Your task to perform on an android device: Open Yahoo.com Image 0: 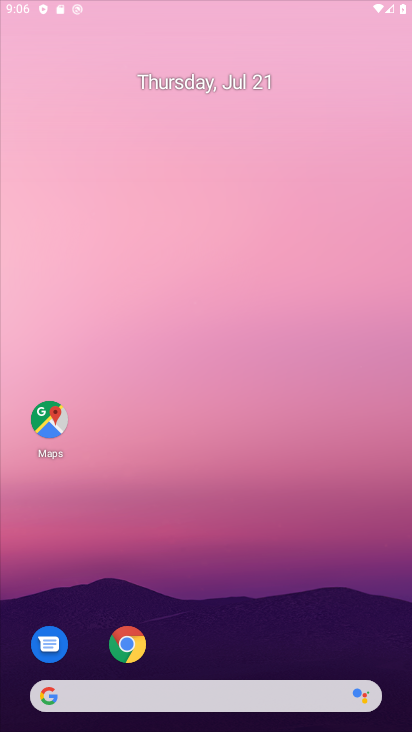
Step 0: drag from (233, 685) to (166, 229)
Your task to perform on an android device: Open Yahoo.com Image 1: 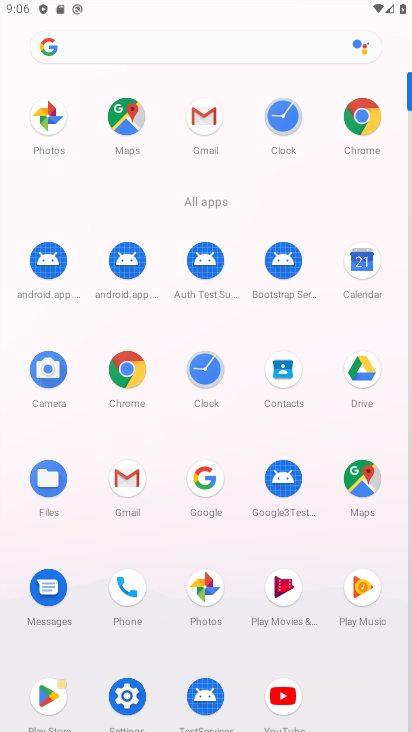
Step 1: click (357, 118)
Your task to perform on an android device: Open Yahoo.com Image 2: 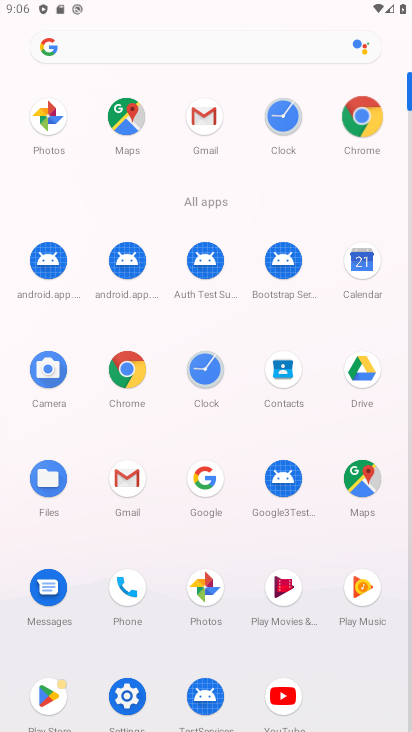
Step 2: click (359, 114)
Your task to perform on an android device: Open Yahoo.com Image 3: 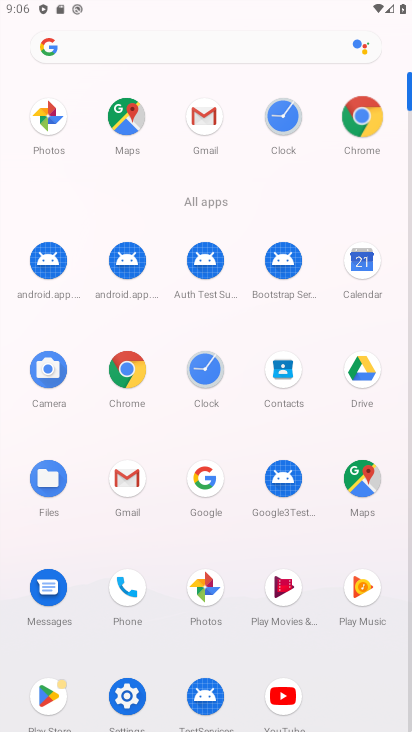
Step 3: click (359, 115)
Your task to perform on an android device: Open Yahoo.com Image 4: 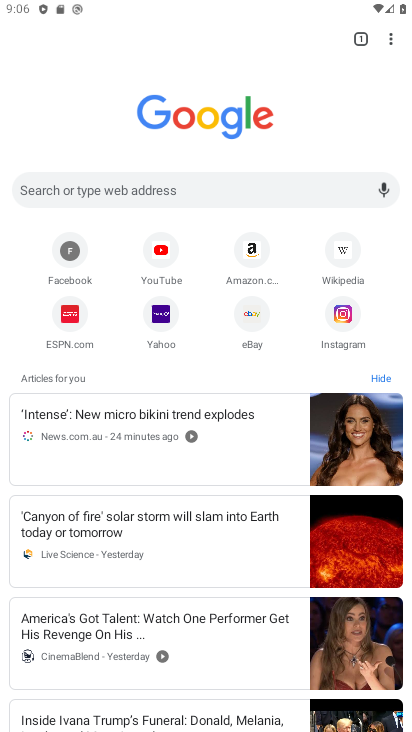
Step 4: click (167, 305)
Your task to perform on an android device: Open Yahoo.com Image 5: 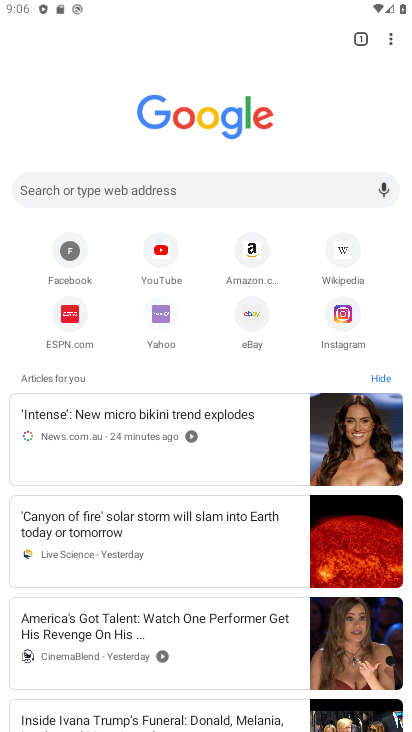
Step 5: click (162, 306)
Your task to perform on an android device: Open Yahoo.com Image 6: 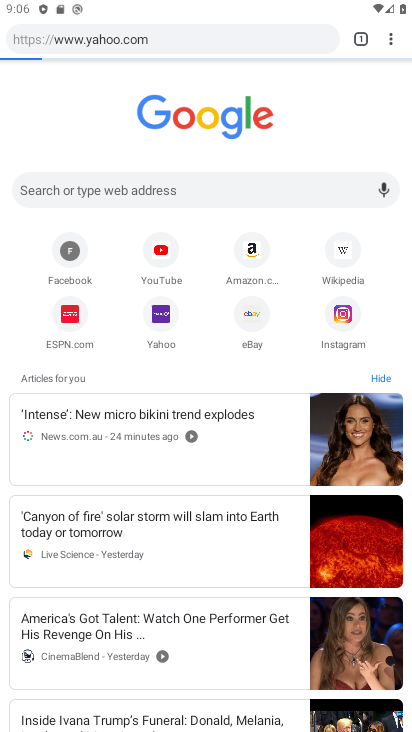
Step 6: click (162, 306)
Your task to perform on an android device: Open Yahoo.com Image 7: 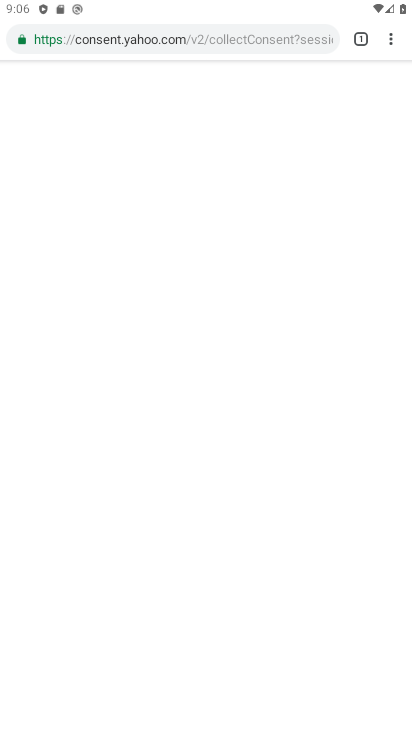
Step 7: task complete